Your task to perform on an android device: Open the calendar app, open the side menu, and click the "Day" option Image 0: 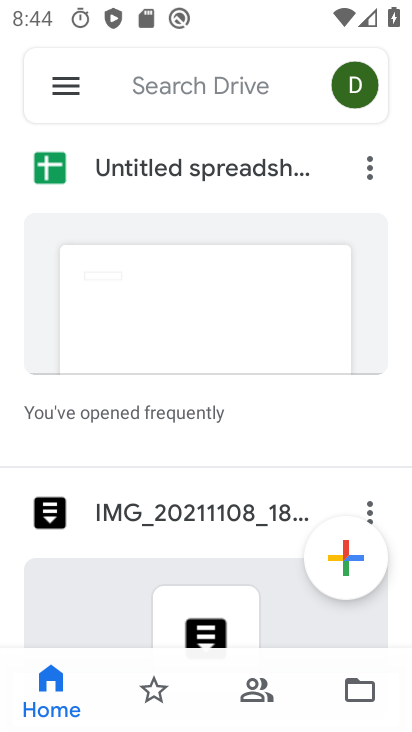
Step 0: press home button
Your task to perform on an android device: Open the calendar app, open the side menu, and click the "Day" option Image 1: 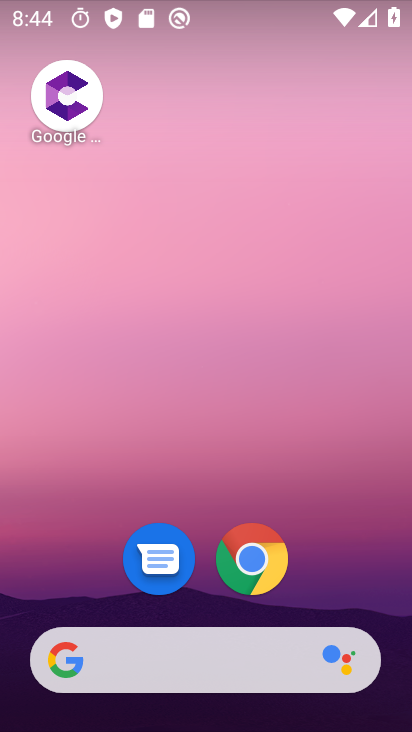
Step 1: drag from (332, 555) to (341, 170)
Your task to perform on an android device: Open the calendar app, open the side menu, and click the "Day" option Image 2: 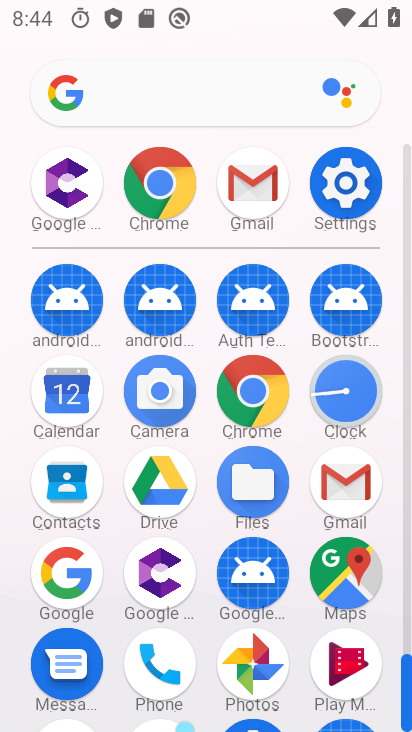
Step 2: click (65, 390)
Your task to perform on an android device: Open the calendar app, open the side menu, and click the "Day" option Image 3: 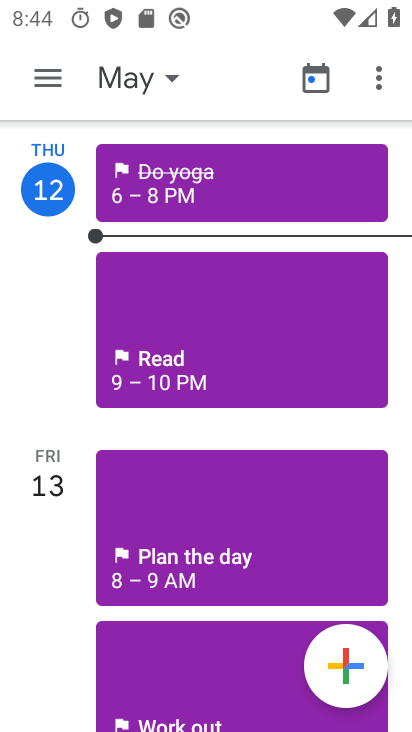
Step 3: click (44, 78)
Your task to perform on an android device: Open the calendar app, open the side menu, and click the "Day" option Image 4: 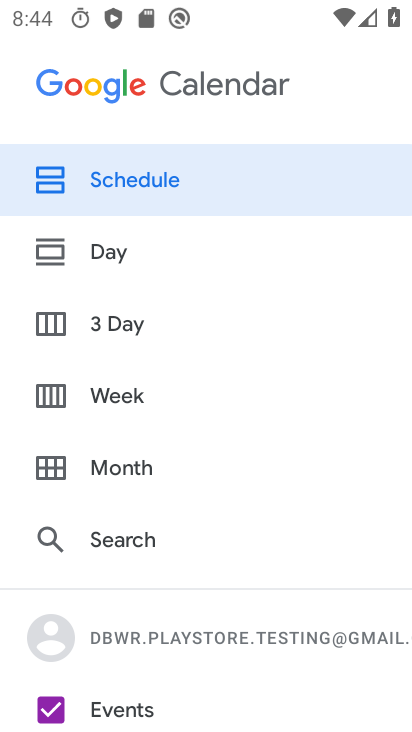
Step 4: click (121, 247)
Your task to perform on an android device: Open the calendar app, open the side menu, and click the "Day" option Image 5: 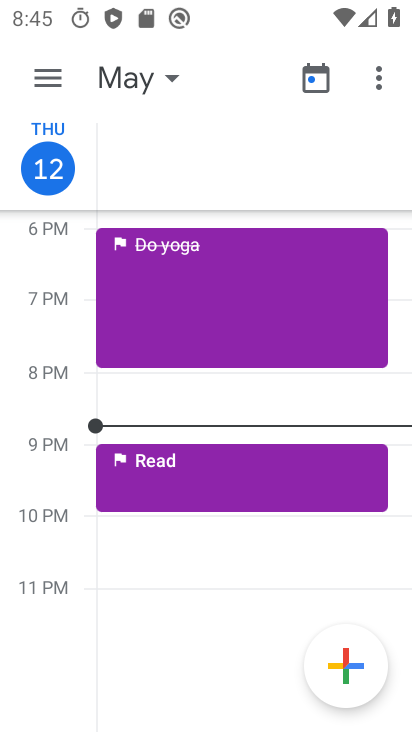
Step 5: task complete